Your task to perform on an android device: check the backup settings in the google photos Image 0: 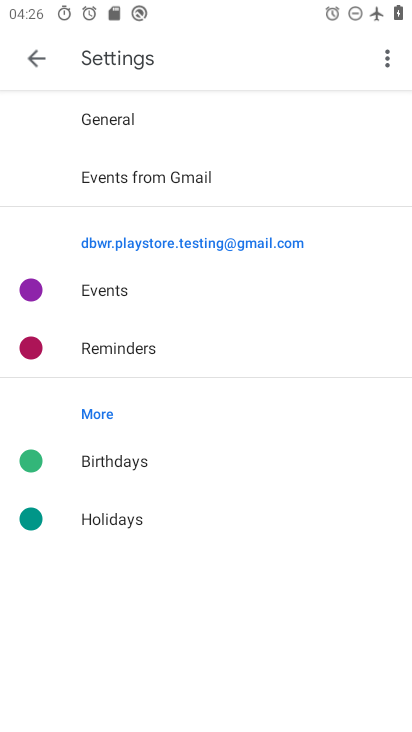
Step 0: press home button
Your task to perform on an android device: check the backup settings in the google photos Image 1: 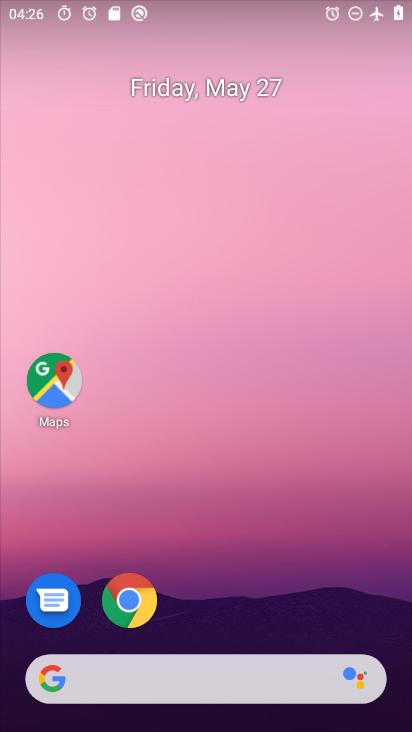
Step 1: drag from (220, 724) to (250, 186)
Your task to perform on an android device: check the backup settings in the google photos Image 2: 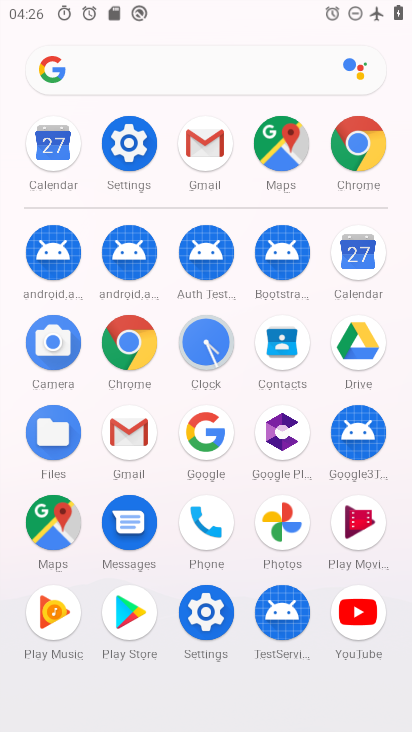
Step 2: click (287, 521)
Your task to perform on an android device: check the backup settings in the google photos Image 3: 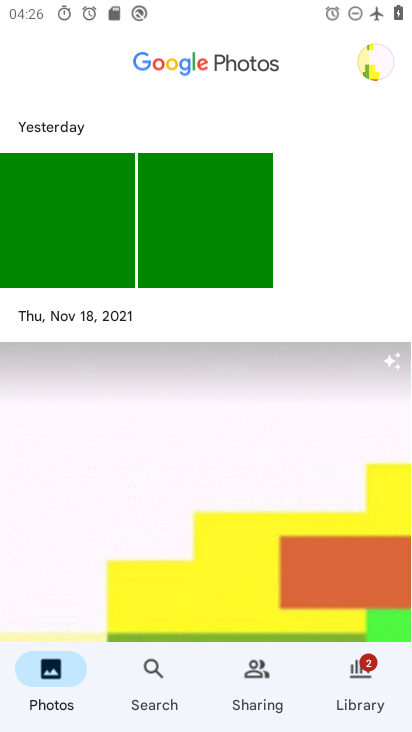
Step 3: click (371, 62)
Your task to perform on an android device: check the backup settings in the google photos Image 4: 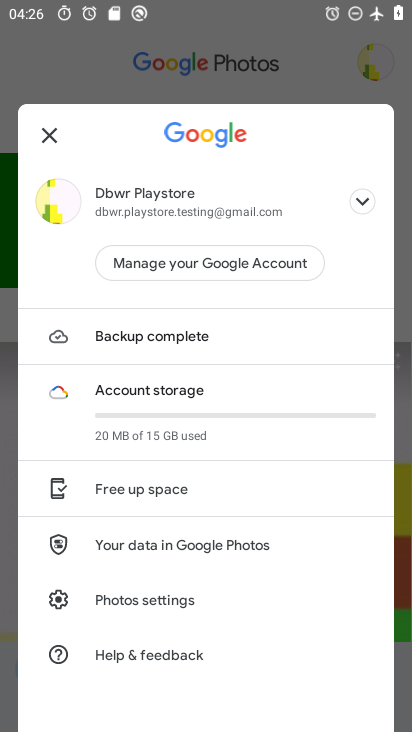
Step 4: drag from (131, 609) to (132, 376)
Your task to perform on an android device: check the backup settings in the google photos Image 5: 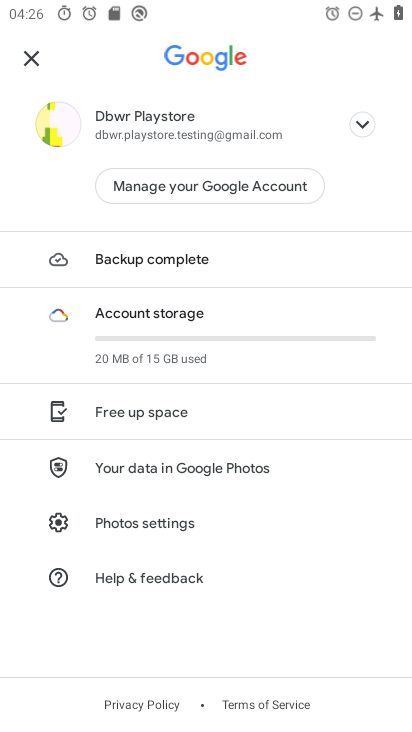
Step 5: click (131, 520)
Your task to perform on an android device: check the backup settings in the google photos Image 6: 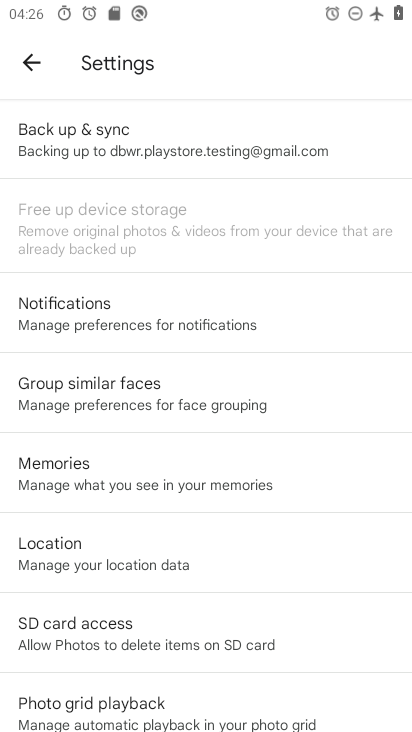
Step 6: click (81, 140)
Your task to perform on an android device: check the backup settings in the google photos Image 7: 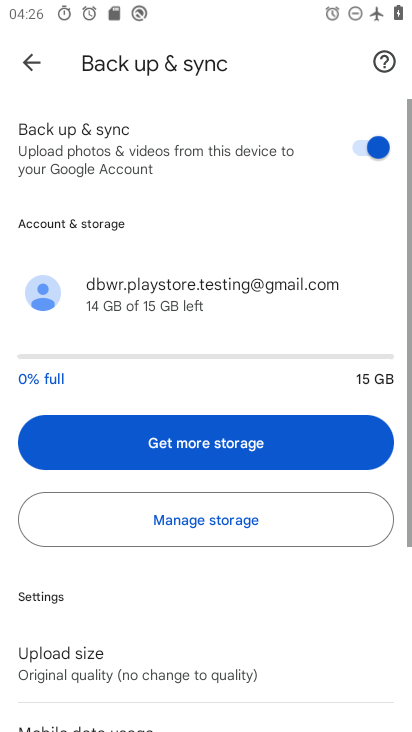
Step 7: task complete